Your task to perform on an android device: turn on javascript in the chrome app Image 0: 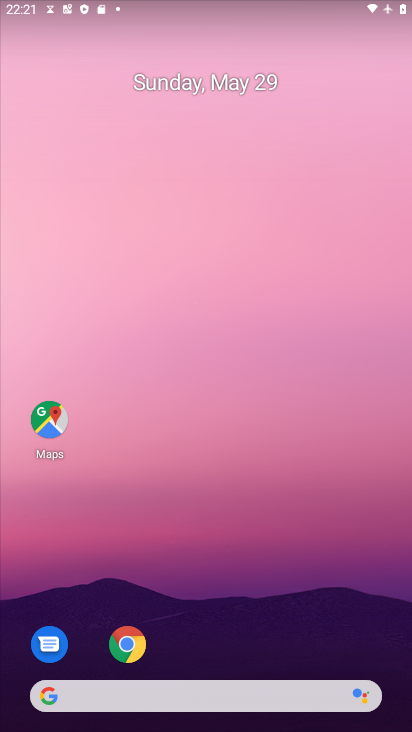
Step 0: drag from (213, 620) to (218, 294)
Your task to perform on an android device: turn on javascript in the chrome app Image 1: 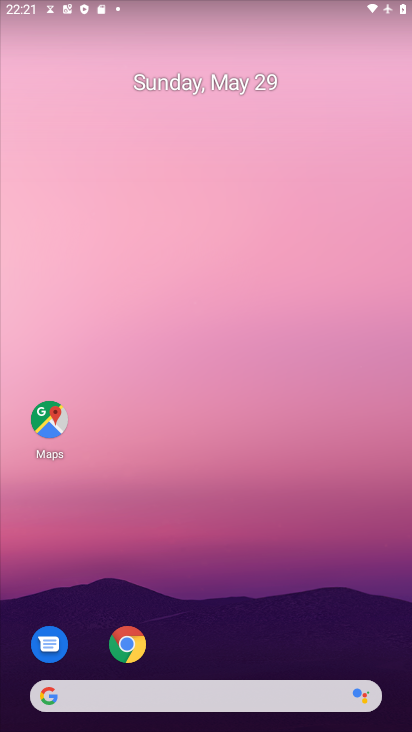
Step 1: drag from (191, 646) to (217, 333)
Your task to perform on an android device: turn on javascript in the chrome app Image 2: 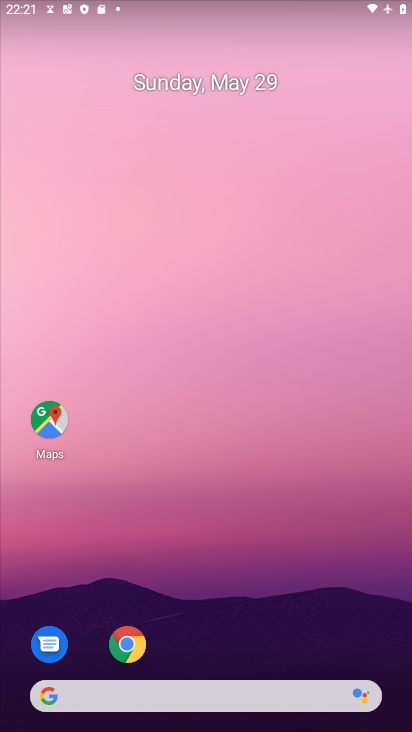
Step 2: click (125, 636)
Your task to perform on an android device: turn on javascript in the chrome app Image 3: 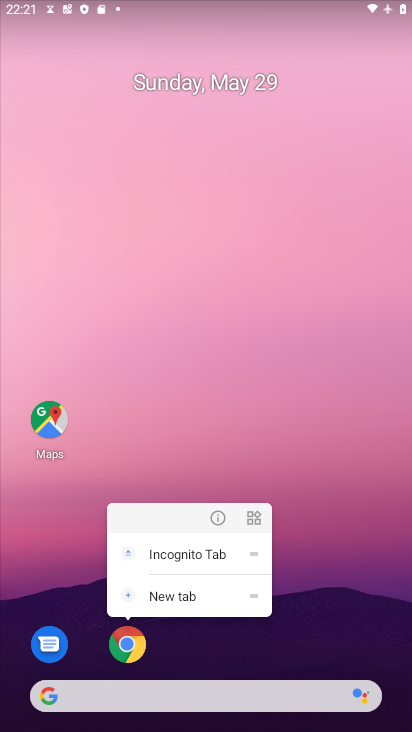
Step 3: click (127, 650)
Your task to perform on an android device: turn on javascript in the chrome app Image 4: 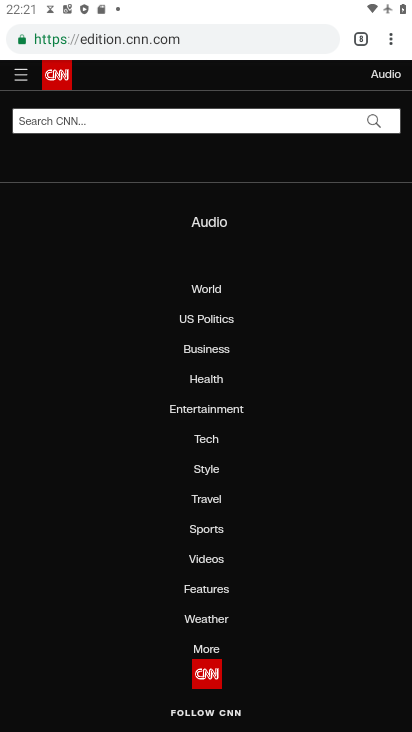
Step 4: click (385, 36)
Your task to perform on an android device: turn on javascript in the chrome app Image 5: 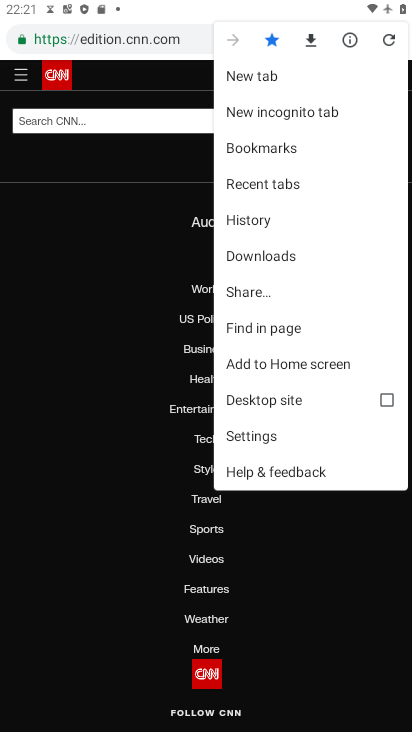
Step 5: click (272, 437)
Your task to perform on an android device: turn on javascript in the chrome app Image 6: 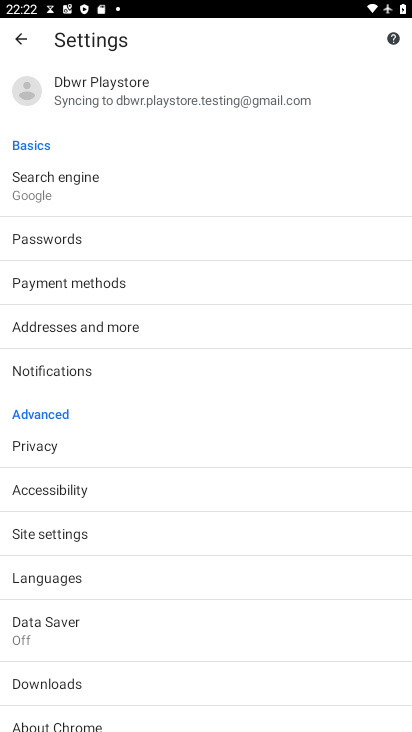
Step 6: drag from (176, 612) to (182, 493)
Your task to perform on an android device: turn on javascript in the chrome app Image 7: 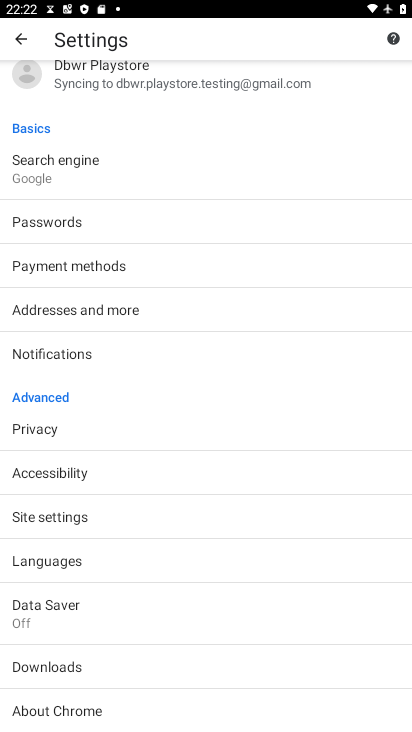
Step 7: click (67, 507)
Your task to perform on an android device: turn on javascript in the chrome app Image 8: 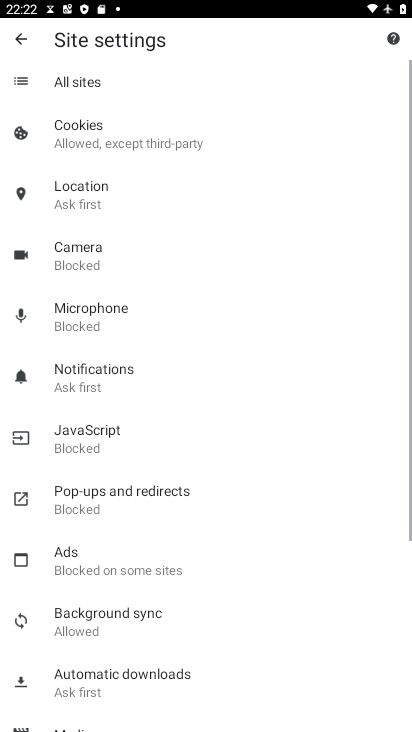
Step 8: click (119, 430)
Your task to perform on an android device: turn on javascript in the chrome app Image 9: 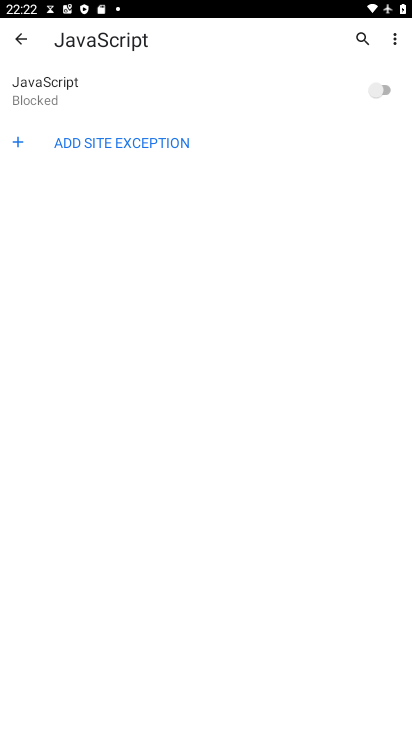
Step 9: click (388, 90)
Your task to perform on an android device: turn on javascript in the chrome app Image 10: 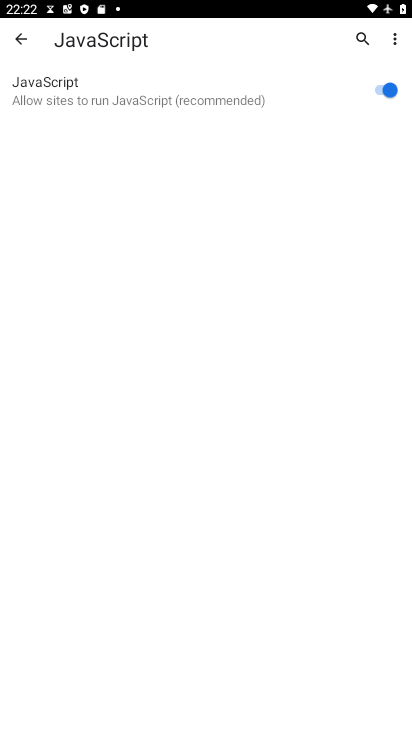
Step 10: task complete